Your task to perform on an android device: Open ESPN.com Image 0: 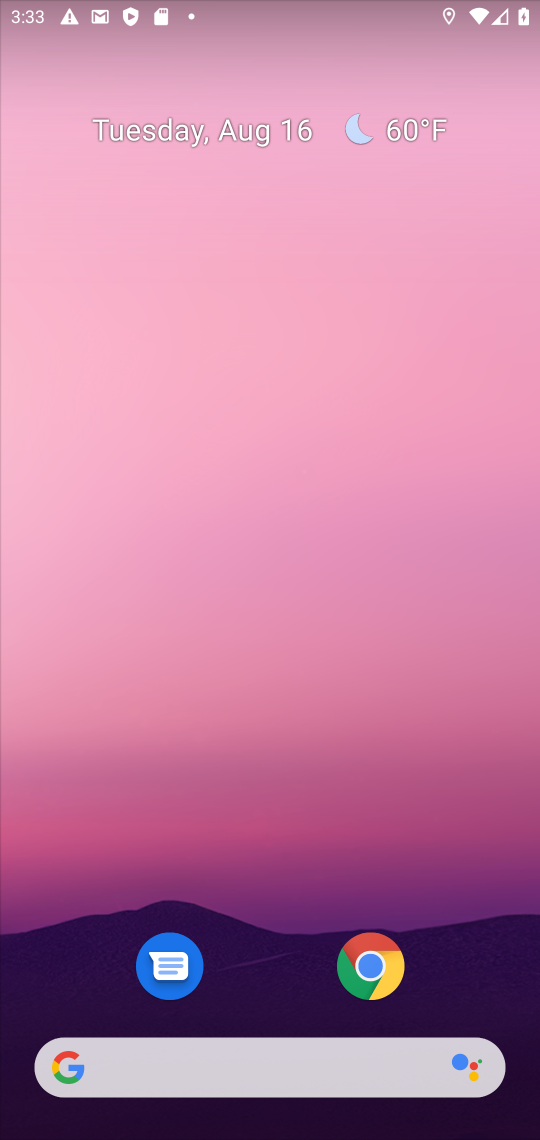
Step 0: click (138, 1049)
Your task to perform on an android device: Open ESPN.com Image 1: 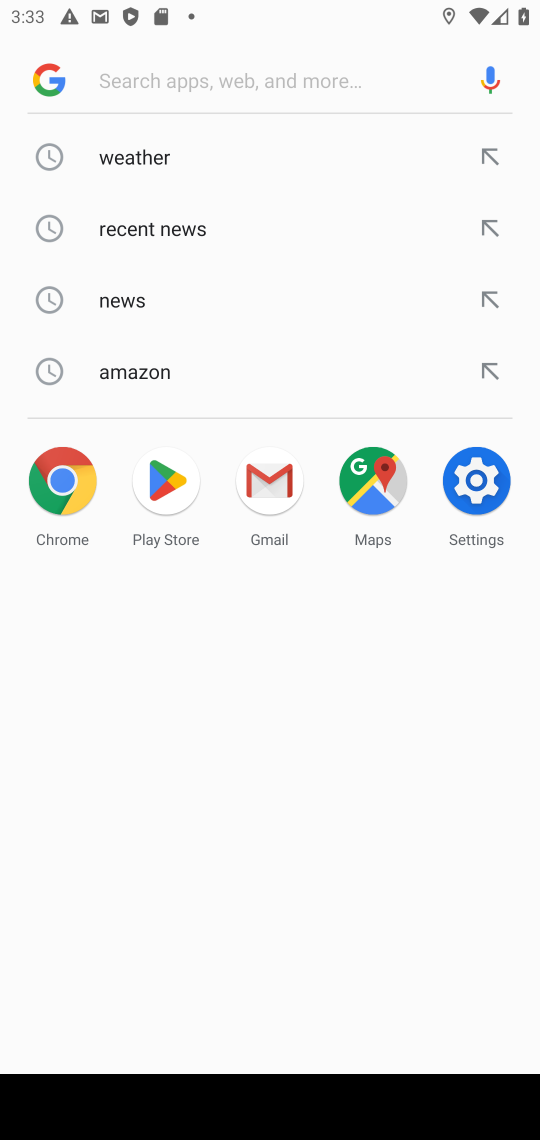
Step 1: type "ESPN.com"
Your task to perform on an android device: Open ESPN.com Image 2: 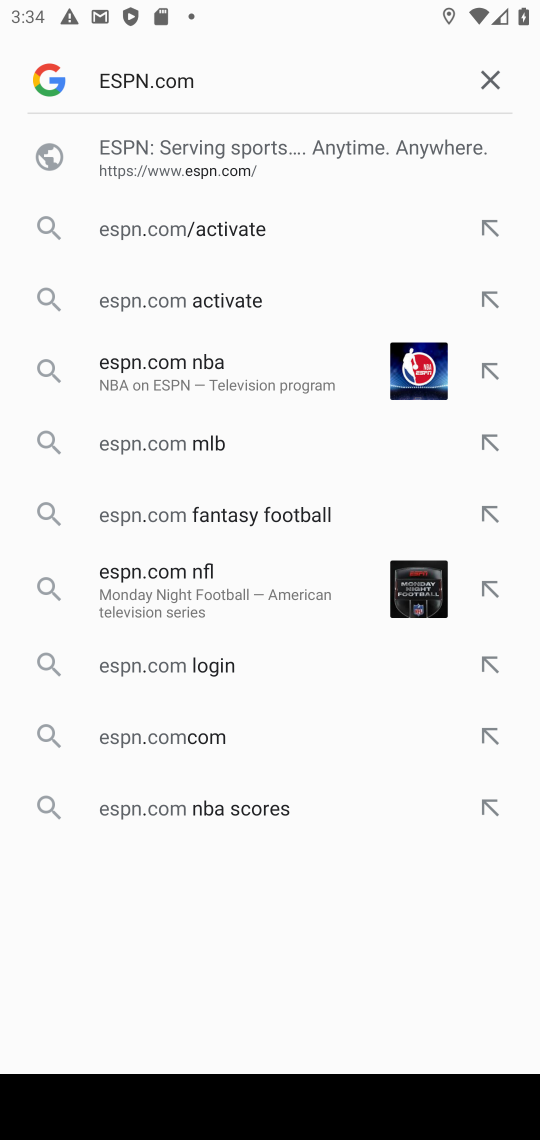
Step 2: type ""
Your task to perform on an android device: Open ESPN.com Image 3: 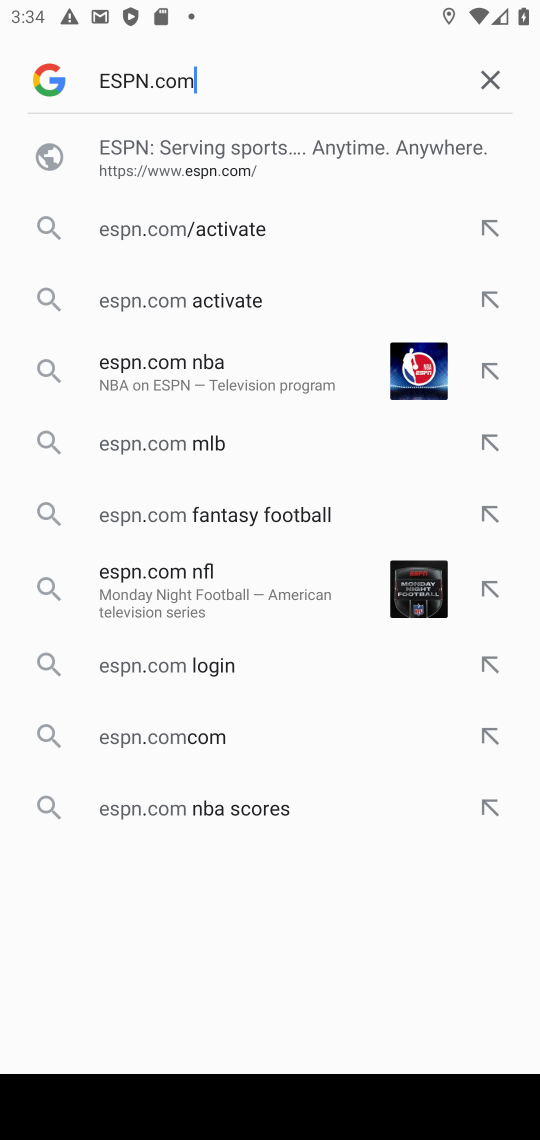
Step 3: type ""
Your task to perform on an android device: Open ESPN.com Image 4: 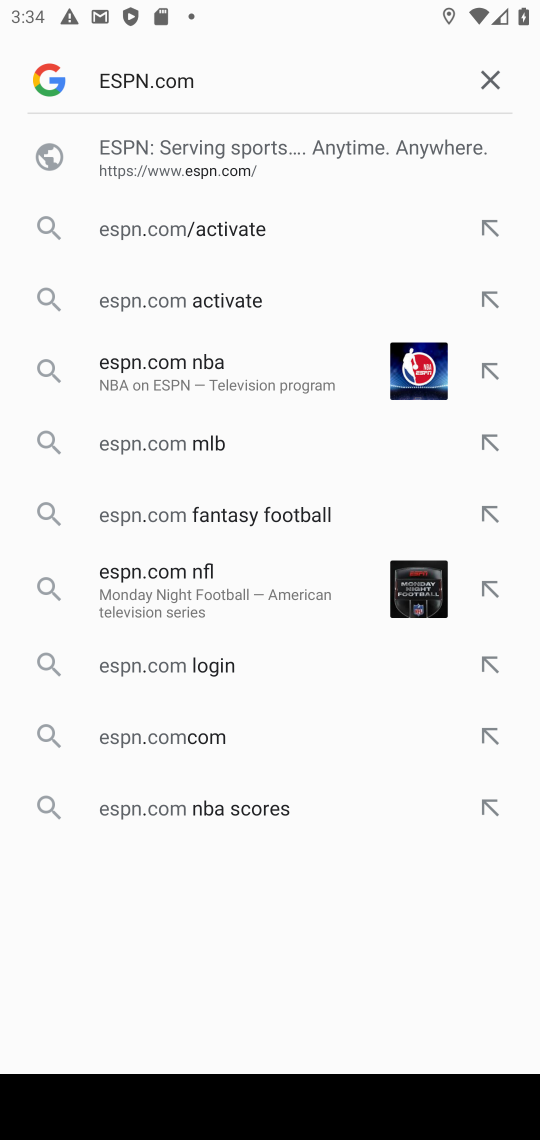
Step 4: task complete